Your task to perform on an android device: see sites visited before in the chrome app Image 0: 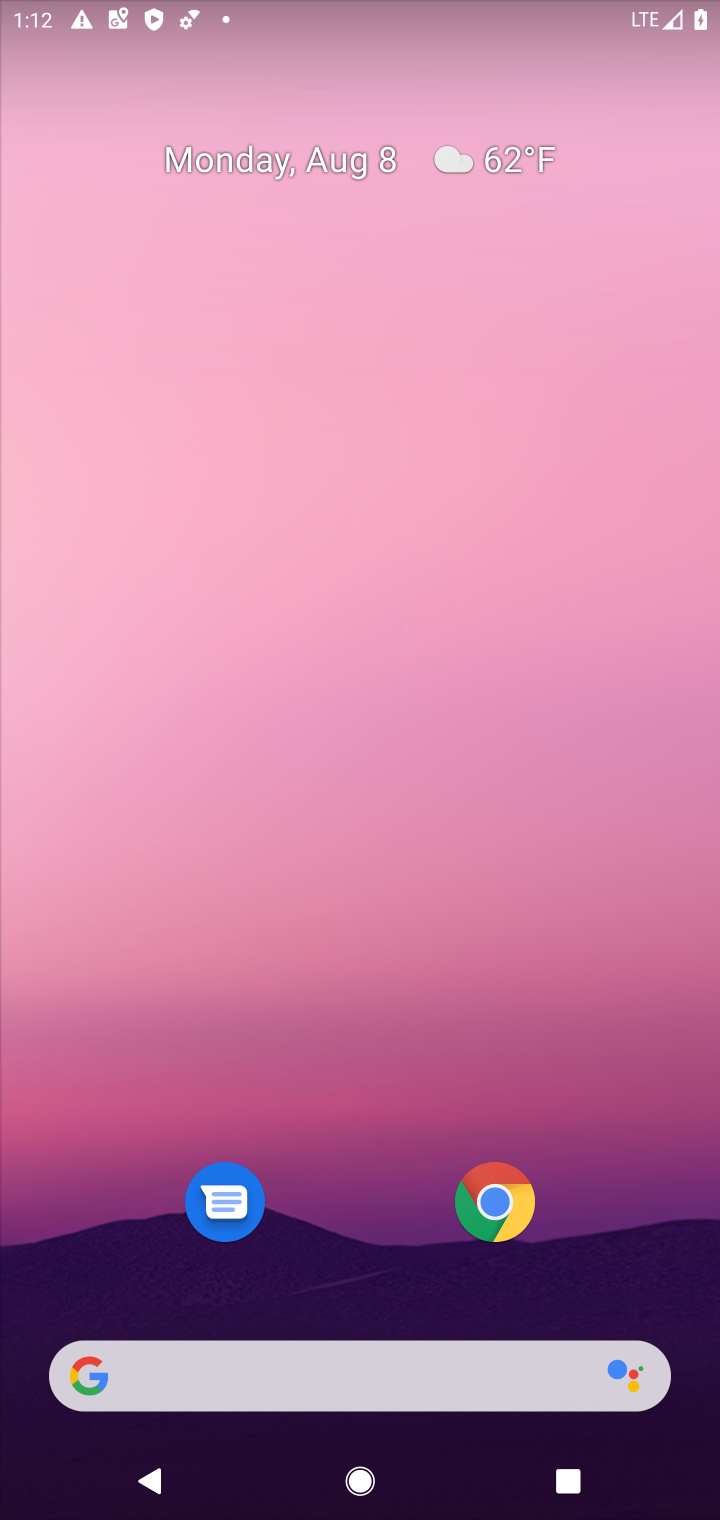
Step 0: press back button
Your task to perform on an android device: see sites visited before in the chrome app Image 1: 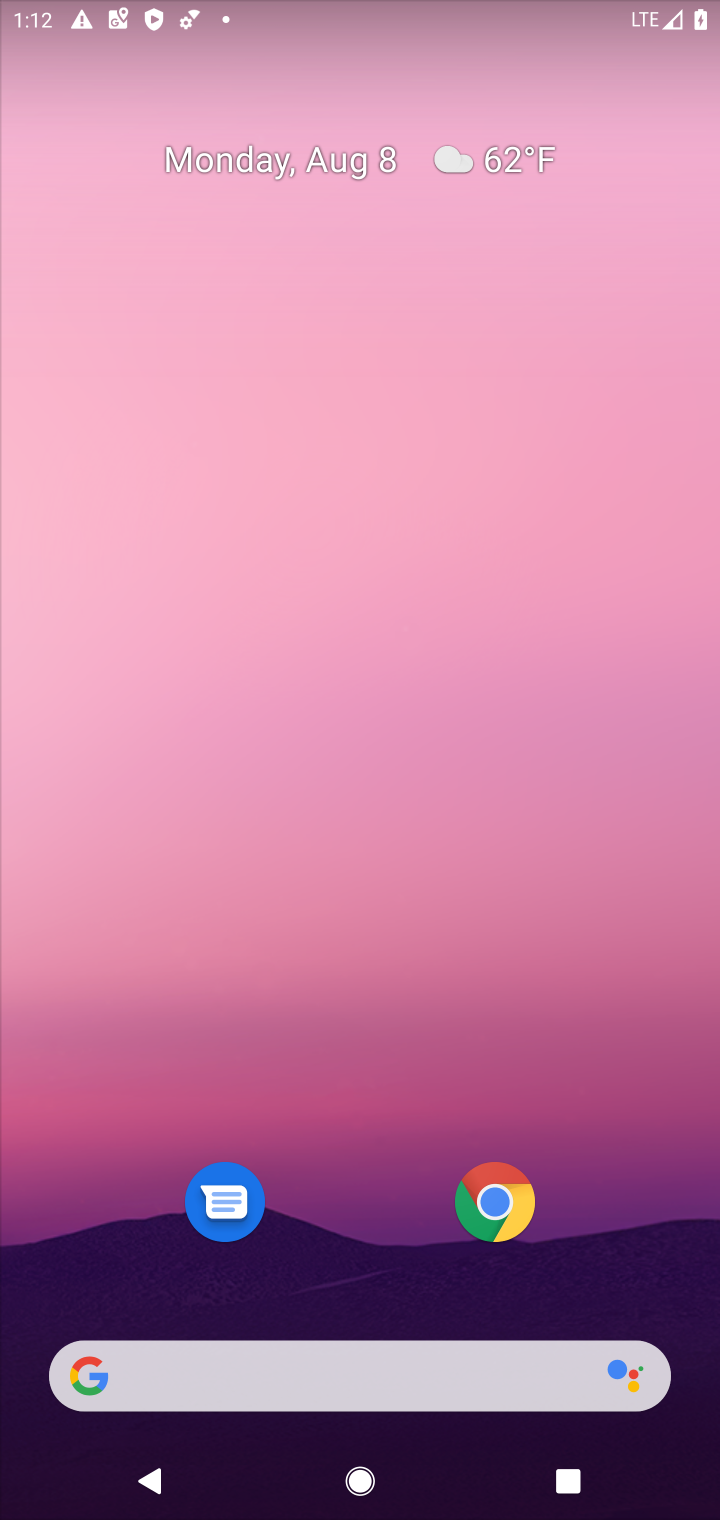
Step 1: click (476, 1214)
Your task to perform on an android device: see sites visited before in the chrome app Image 2: 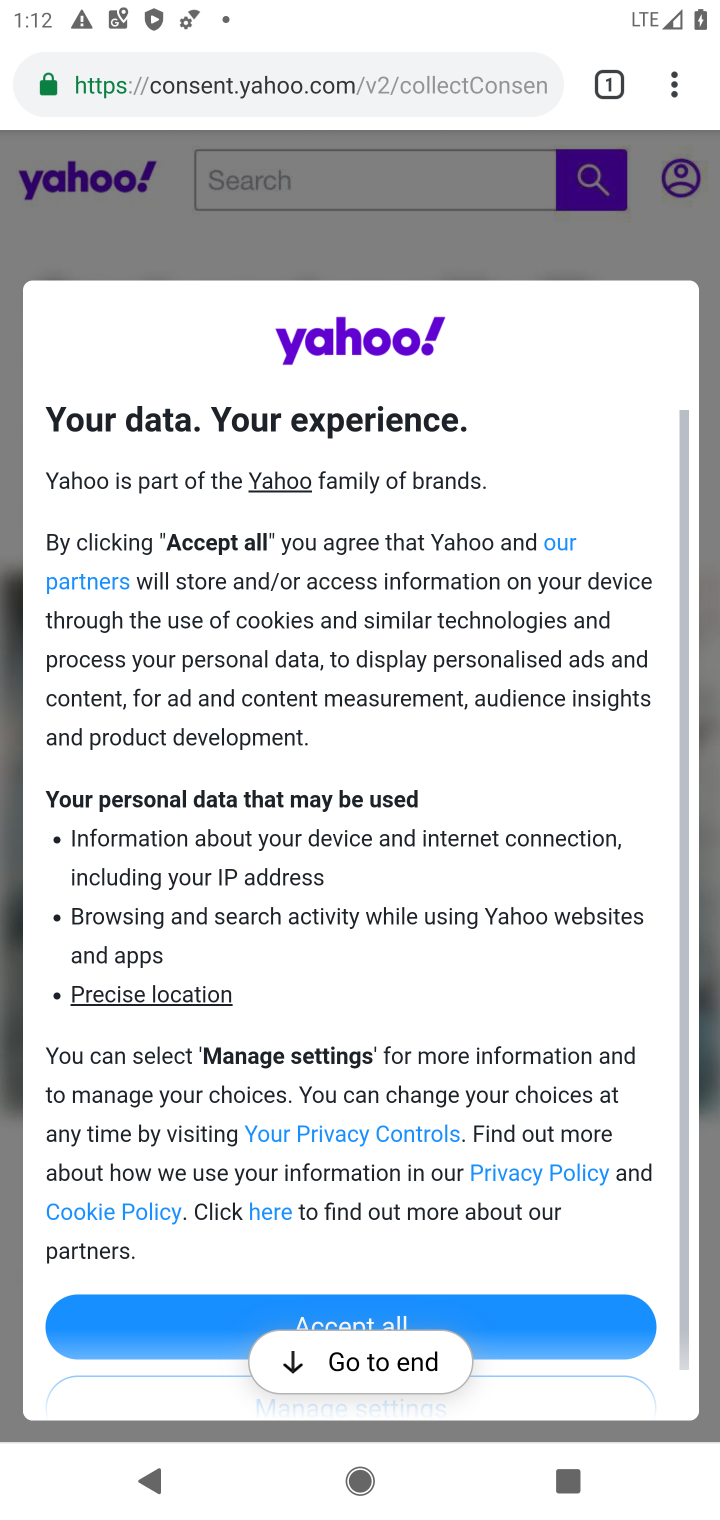
Step 2: click (673, 74)
Your task to perform on an android device: see sites visited before in the chrome app Image 3: 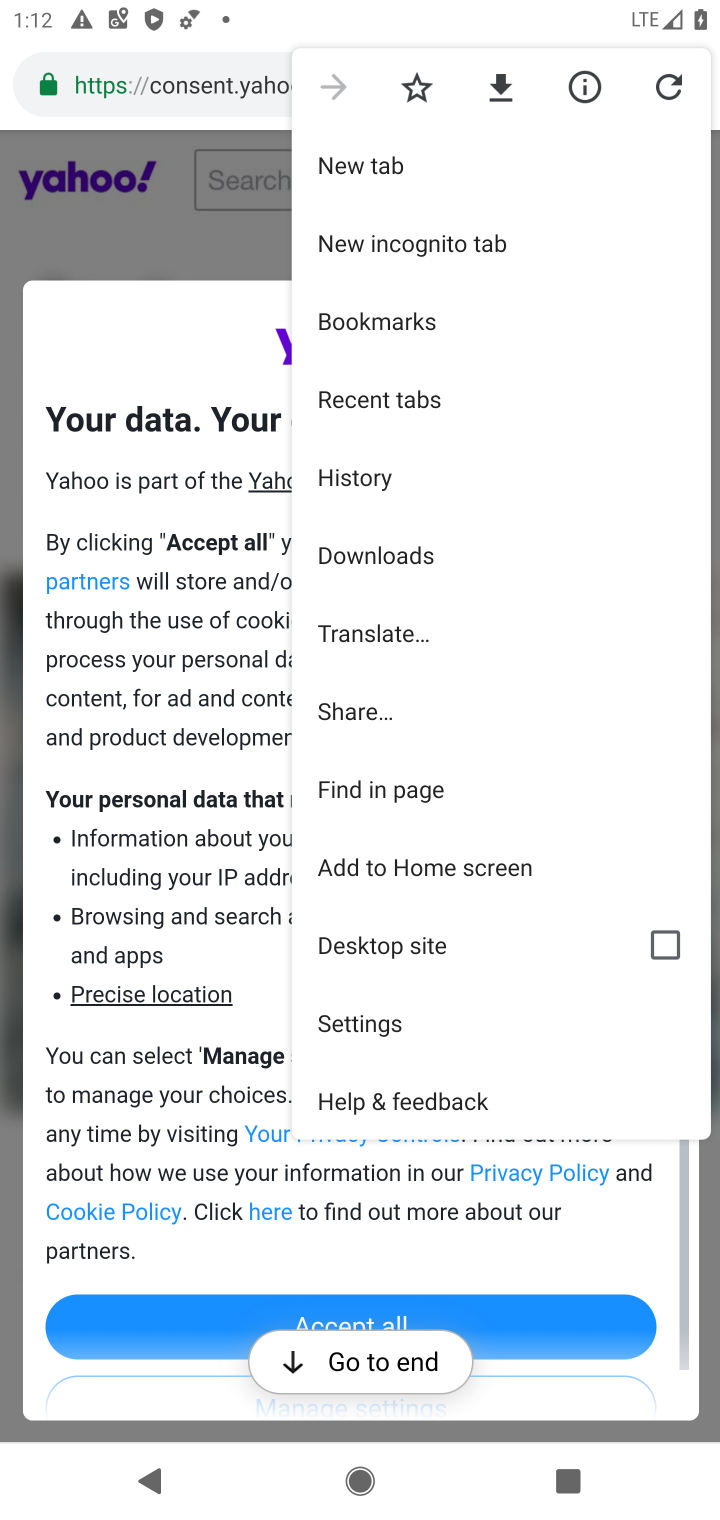
Step 3: click (381, 487)
Your task to perform on an android device: see sites visited before in the chrome app Image 4: 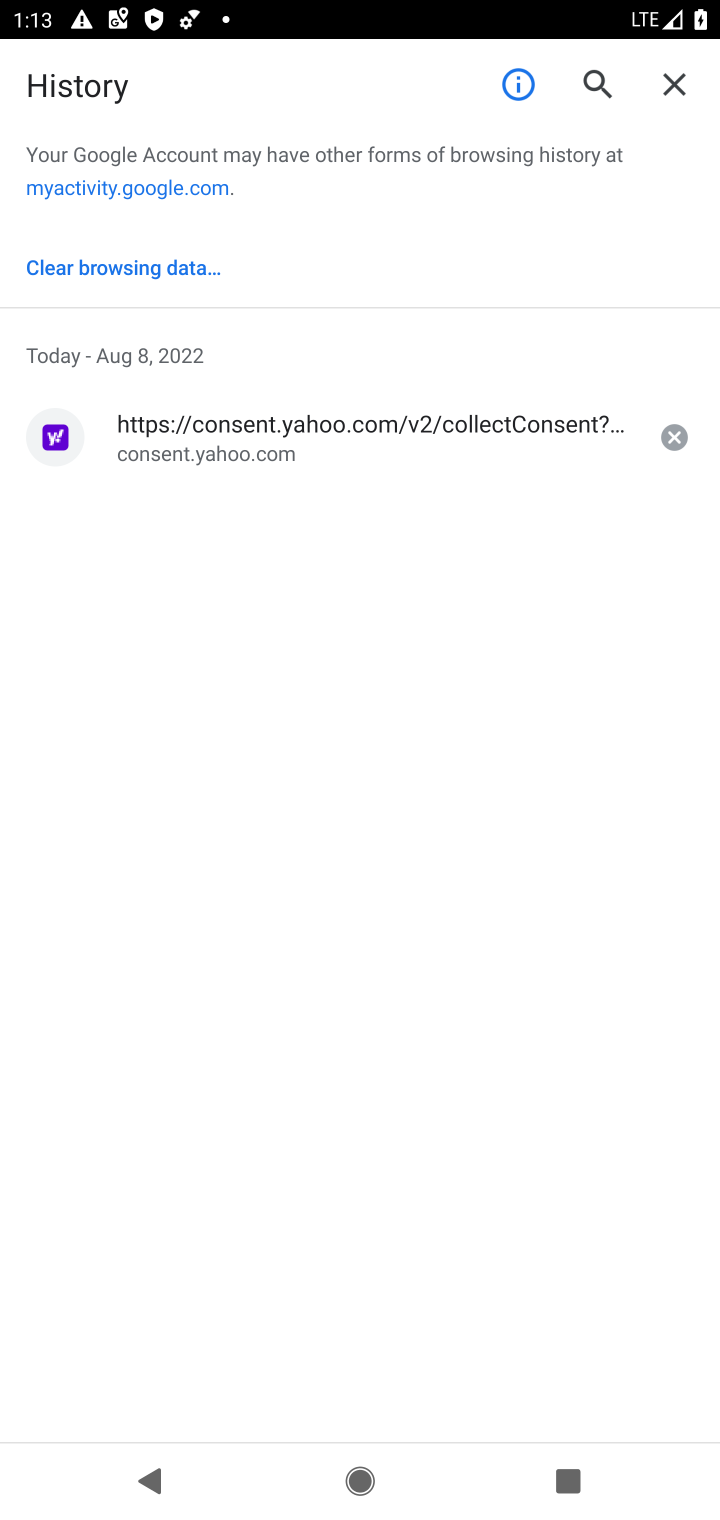
Step 4: task complete